Your task to perform on an android device: toggle pop-ups in chrome Image 0: 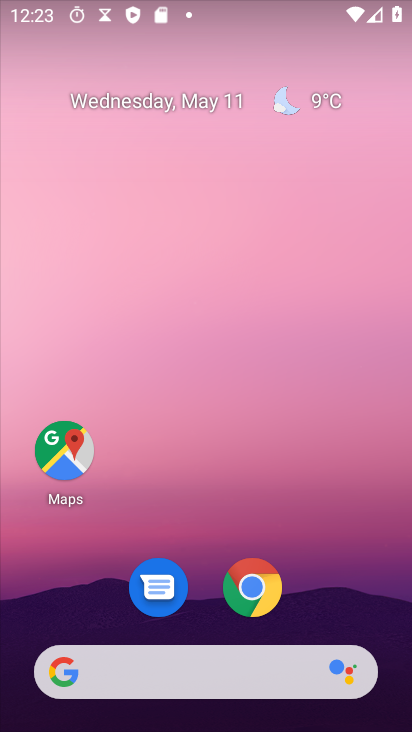
Step 0: drag from (348, 596) to (211, 74)
Your task to perform on an android device: toggle pop-ups in chrome Image 1: 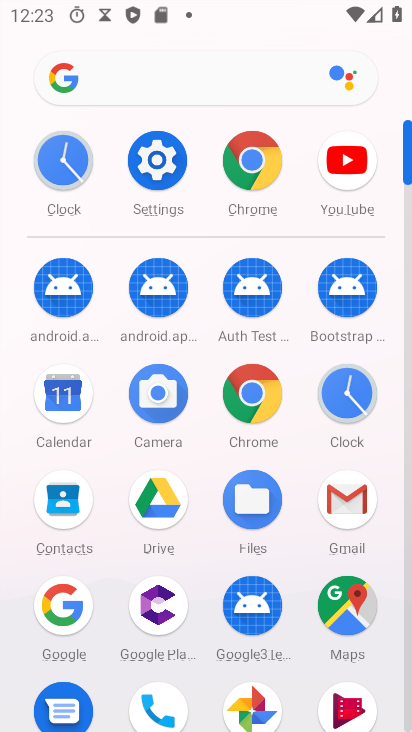
Step 1: click (250, 172)
Your task to perform on an android device: toggle pop-ups in chrome Image 2: 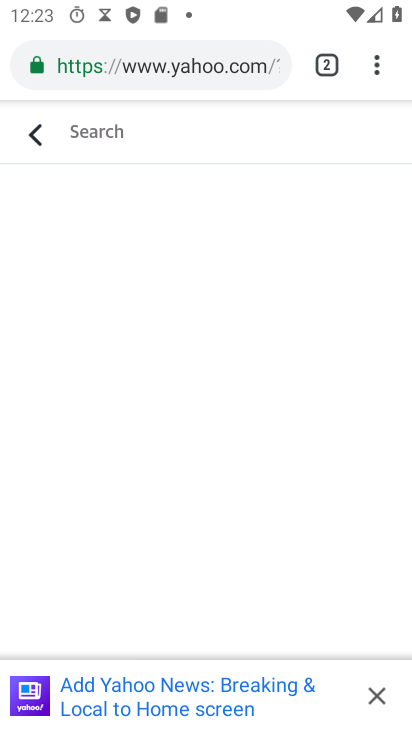
Step 2: click (28, 138)
Your task to perform on an android device: toggle pop-ups in chrome Image 3: 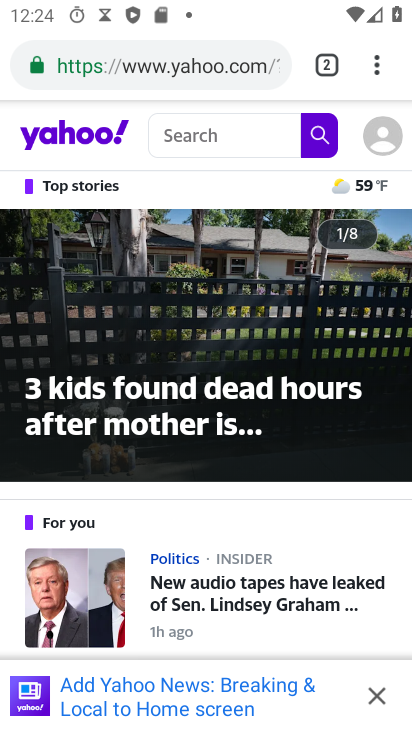
Step 3: drag from (374, 58) to (161, 502)
Your task to perform on an android device: toggle pop-ups in chrome Image 4: 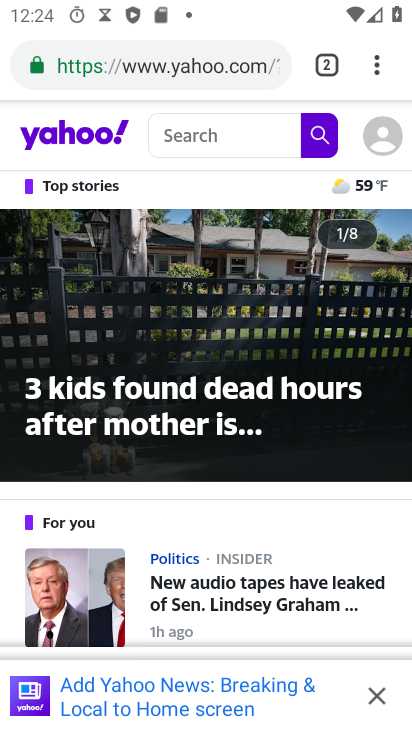
Step 4: drag from (203, 618) to (189, 105)
Your task to perform on an android device: toggle pop-ups in chrome Image 5: 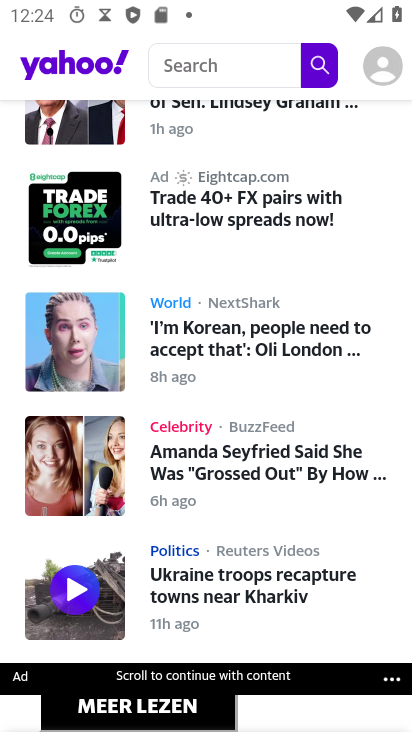
Step 5: press back button
Your task to perform on an android device: toggle pop-ups in chrome Image 6: 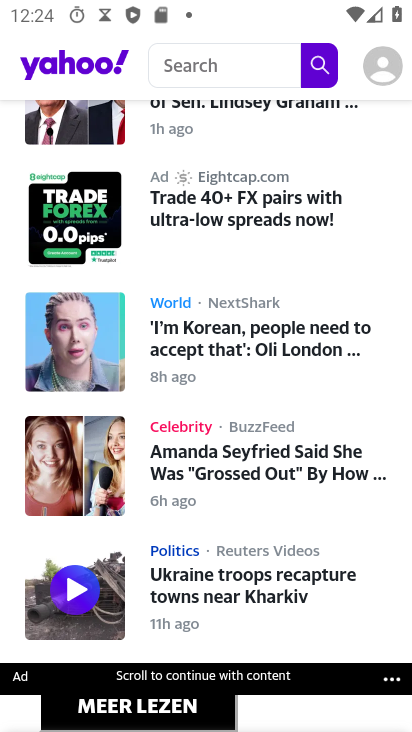
Step 6: press back button
Your task to perform on an android device: toggle pop-ups in chrome Image 7: 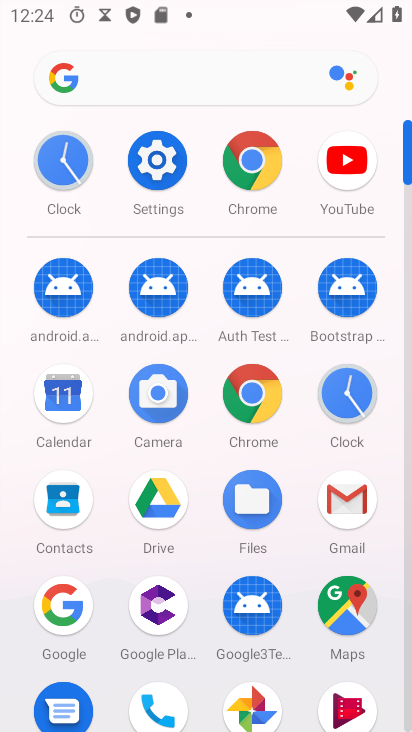
Step 7: click (252, 163)
Your task to perform on an android device: toggle pop-ups in chrome Image 8: 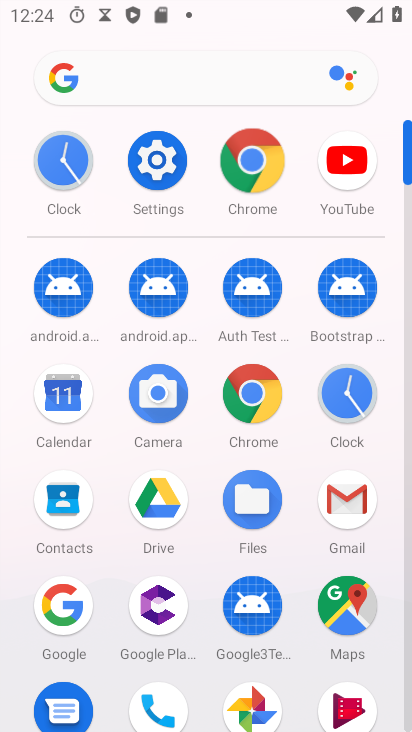
Step 8: click (254, 161)
Your task to perform on an android device: toggle pop-ups in chrome Image 9: 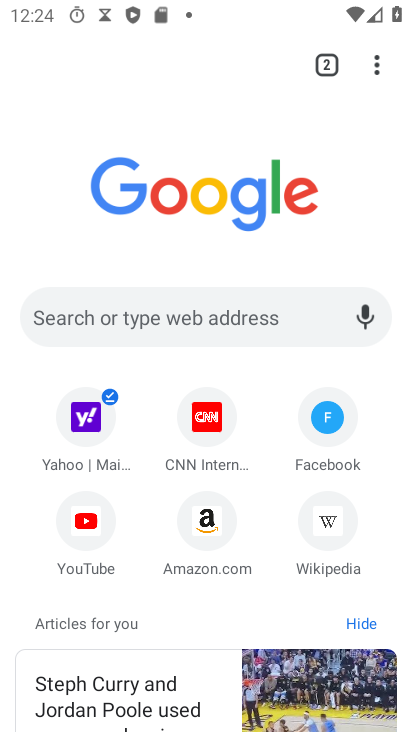
Step 9: drag from (370, 62) to (136, 546)
Your task to perform on an android device: toggle pop-ups in chrome Image 10: 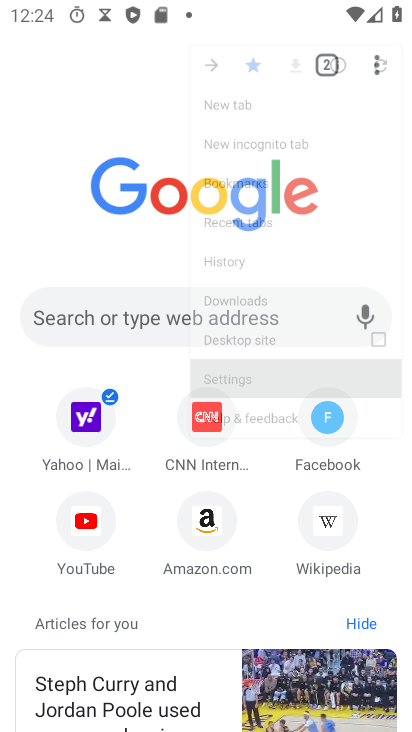
Step 10: click (135, 547)
Your task to perform on an android device: toggle pop-ups in chrome Image 11: 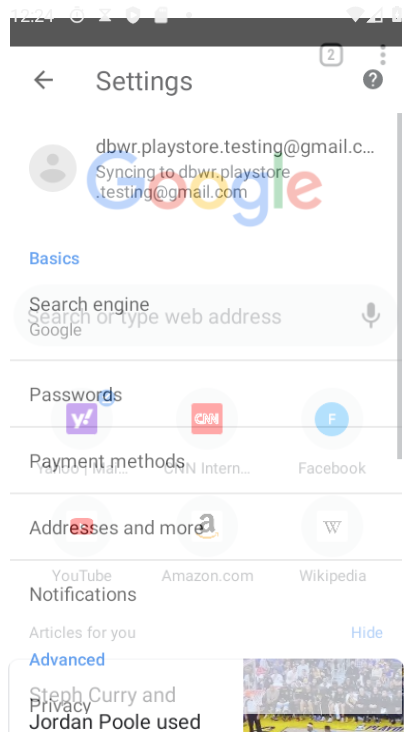
Step 11: click (135, 547)
Your task to perform on an android device: toggle pop-ups in chrome Image 12: 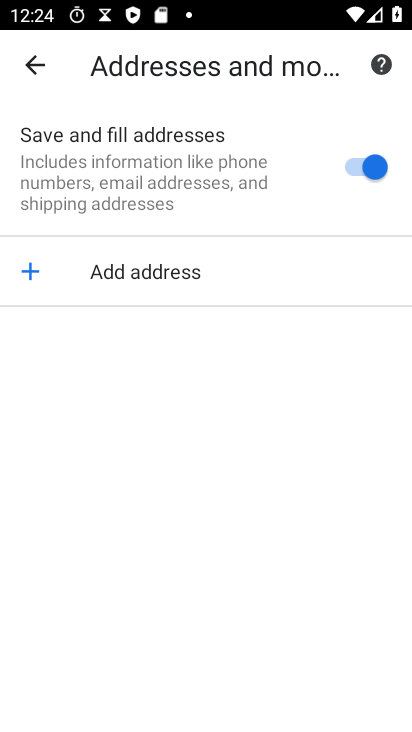
Step 12: click (27, 56)
Your task to perform on an android device: toggle pop-ups in chrome Image 13: 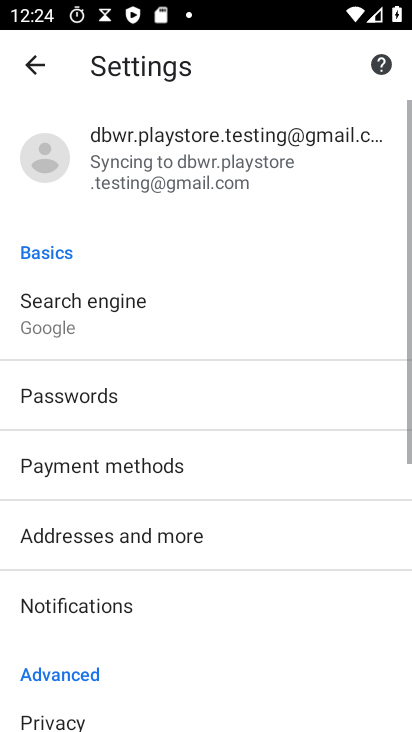
Step 13: drag from (142, 588) to (164, 129)
Your task to perform on an android device: toggle pop-ups in chrome Image 14: 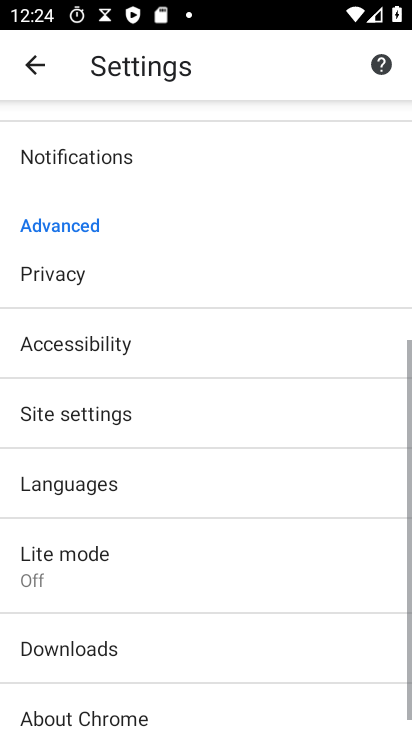
Step 14: drag from (187, 481) to (177, 134)
Your task to perform on an android device: toggle pop-ups in chrome Image 15: 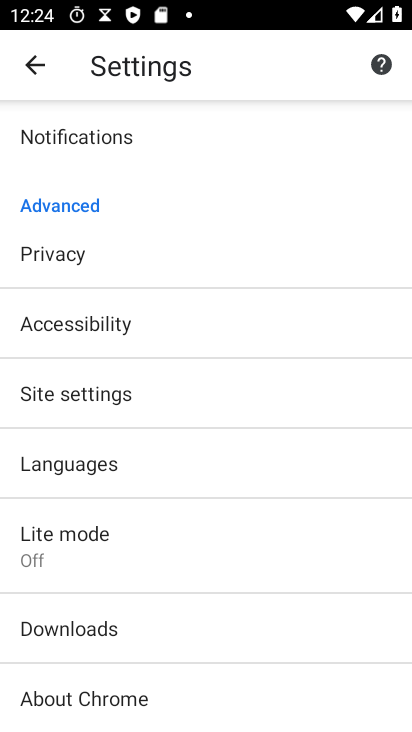
Step 15: click (74, 394)
Your task to perform on an android device: toggle pop-ups in chrome Image 16: 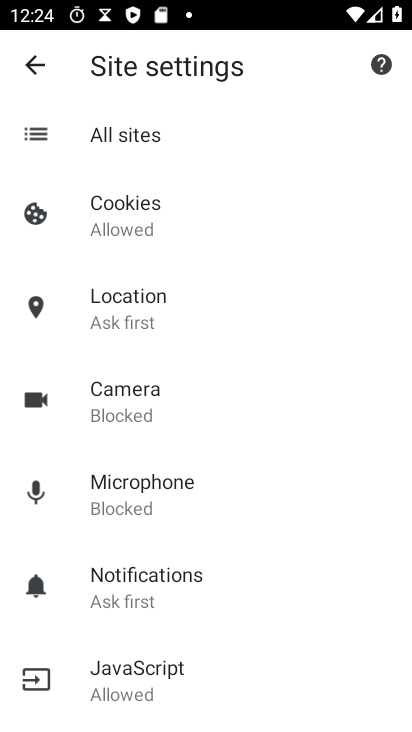
Step 16: drag from (185, 591) to (169, 64)
Your task to perform on an android device: toggle pop-ups in chrome Image 17: 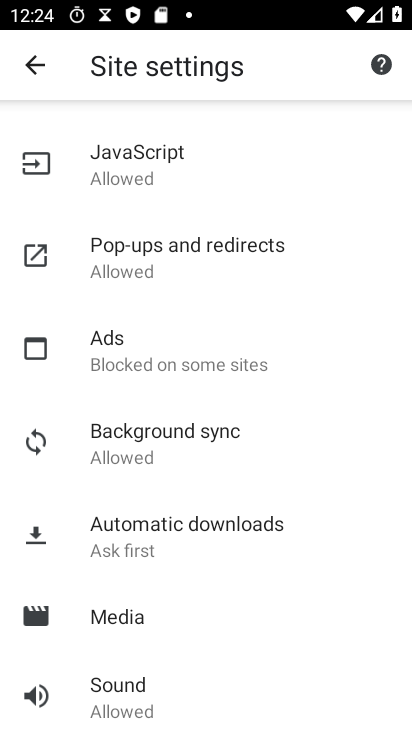
Step 17: click (134, 247)
Your task to perform on an android device: toggle pop-ups in chrome Image 18: 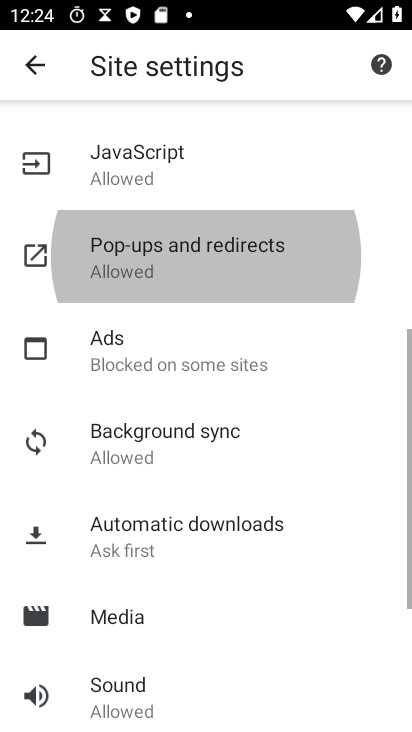
Step 18: click (134, 247)
Your task to perform on an android device: toggle pop-ups in chrome Image 19: 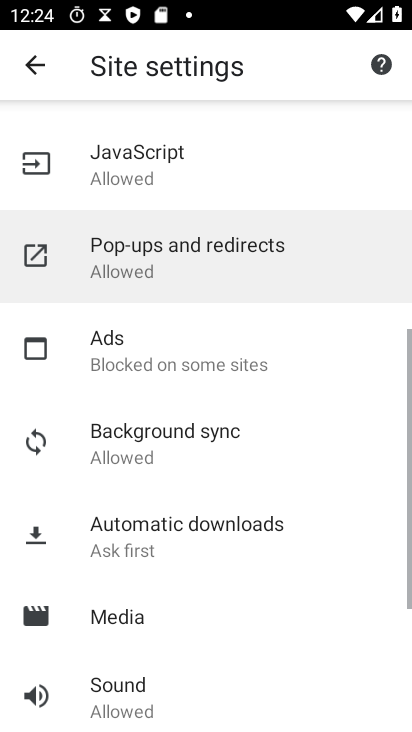
Step 19: click (134, 247)
Your task to perform on an android device: toggle pop-ups in chrome Image 20: 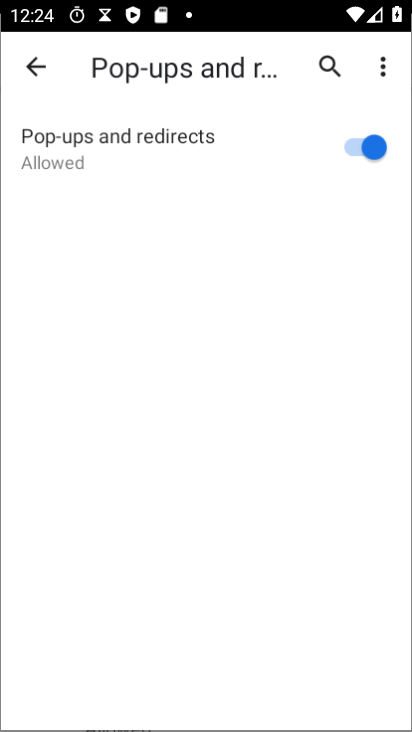
Step 20: click (134, 247)
Your task to perform on an android device: toggle pop-ups in chrome Image 21: 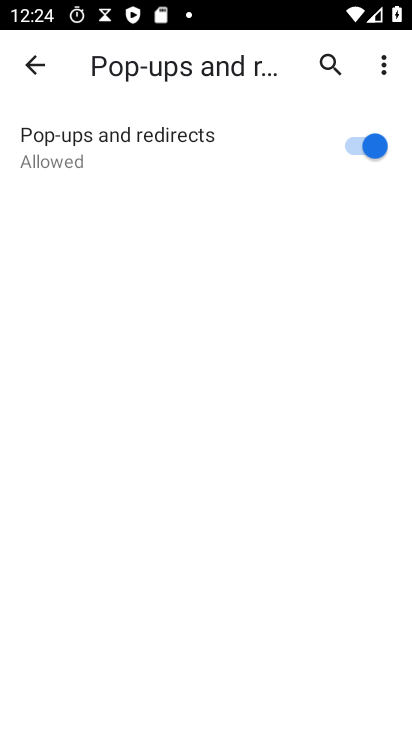
Step 21: click (375, 141)
Your task to perform on an android device: toggle pop-ups in chrome Image 22: 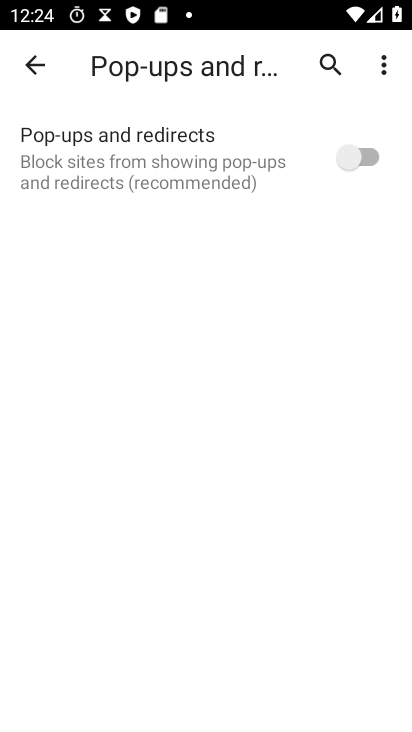
Step 22: task complete